Your task to perform on an android device: open app "Roku - Official Remote Control" (install if not already installed) and enter user name: "autumnal@gmail.com" and password: "stuffing" Image 0: 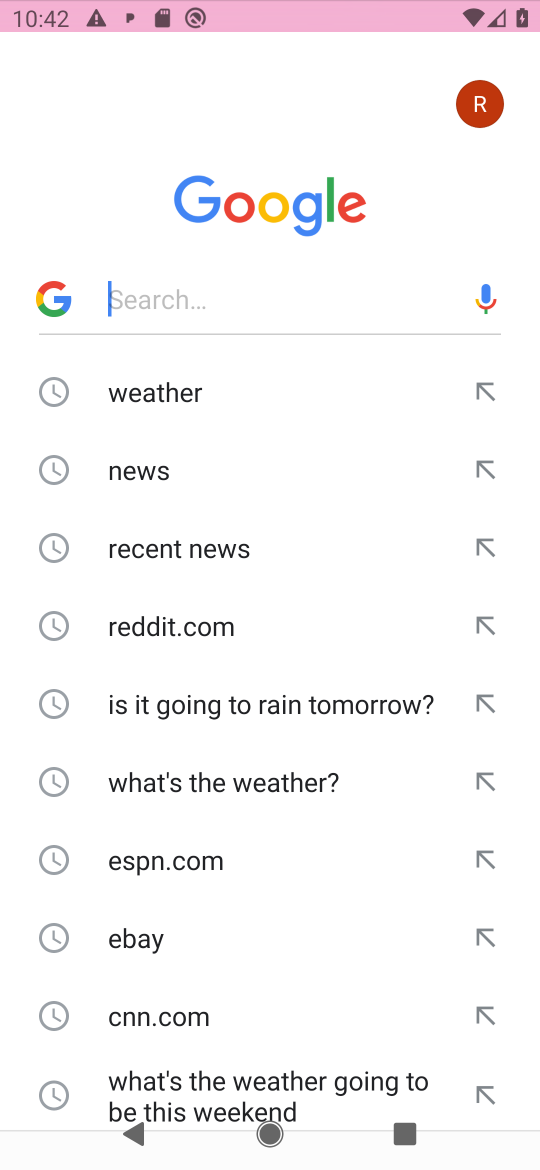
Step 0: press home button
Your task to perform on an android device: open app "Roku - Official Remote Control" (install if not already installed) and enter user name: "autumnal@gmail.com" and password: "stuffing" Image 1: 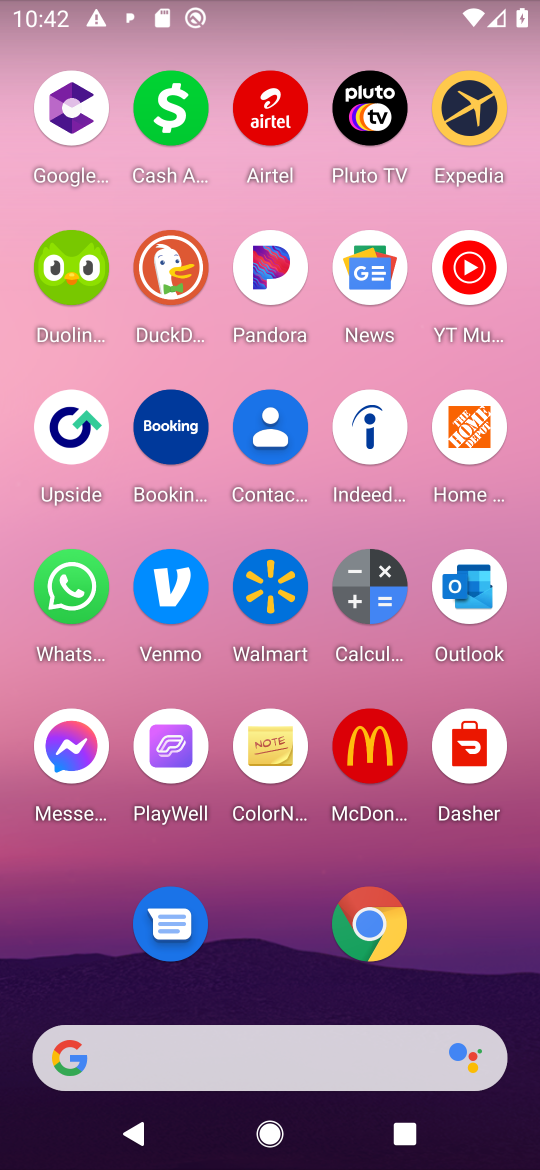
Step 1: drag from (442, 843) to (454, 58)
Your task to perform on an android device: open app "Roku - Official Remote Control" (install if not already installed) and enter user name: "autumnal@gmail.com" and password: "stuffing" Image 2: 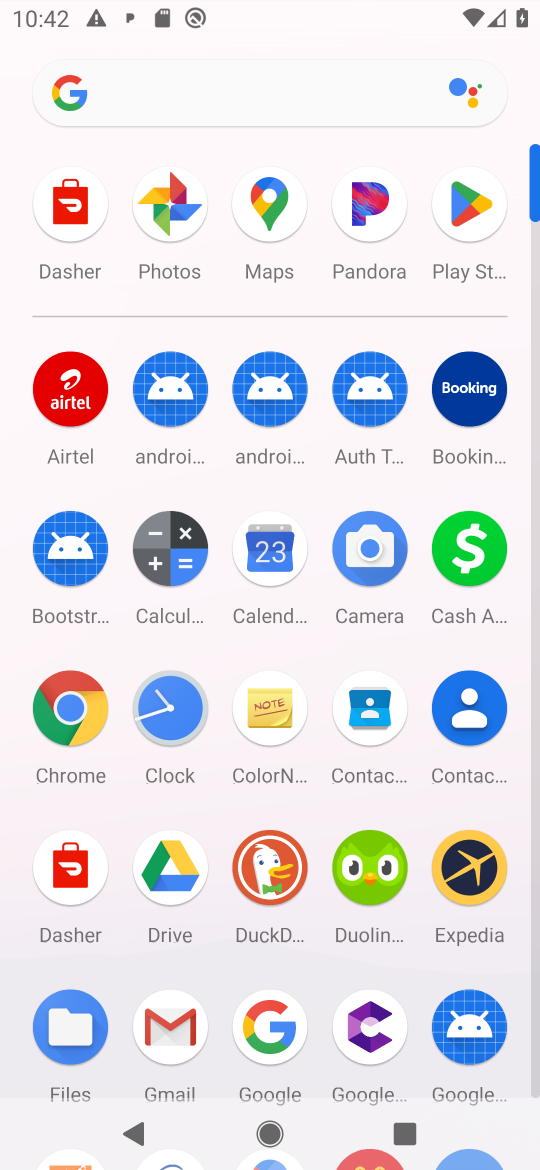
Step 2: click (471, 210)
Your task to perform on an android device: open app "Roku - Official Remote Control" (install if not already installed) and enter user name: "autumnal@gmail.com" and password: "stuffing" Image 3: 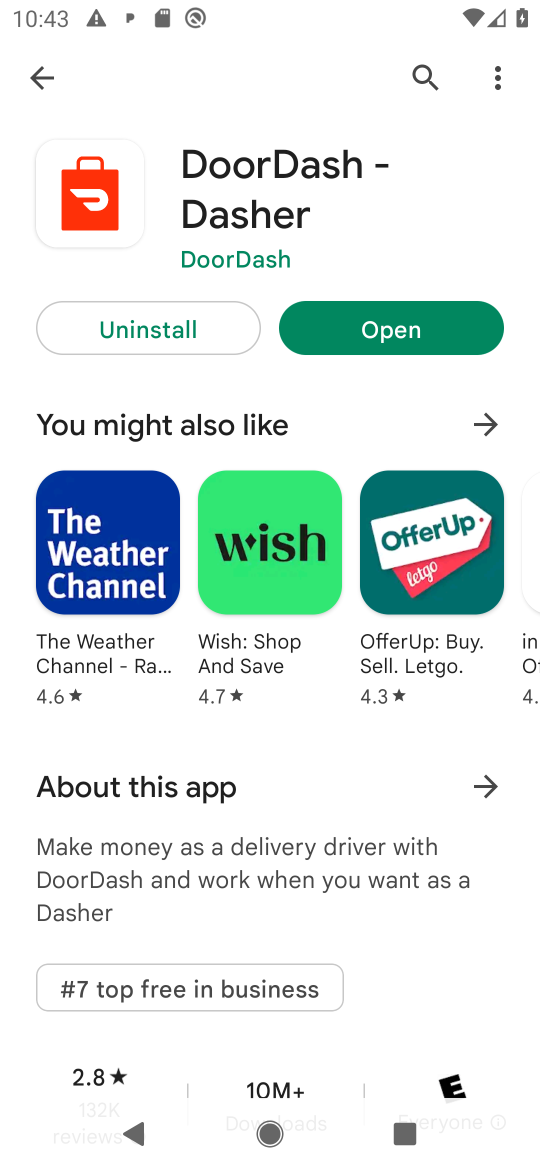
Step 3: press back button
Your task to perform on an android device: open app "Roku - Official Remote Control" (install if not already installed) and enter user name: "autumnal@gmail.com" and password: "stuffing" Image 4: 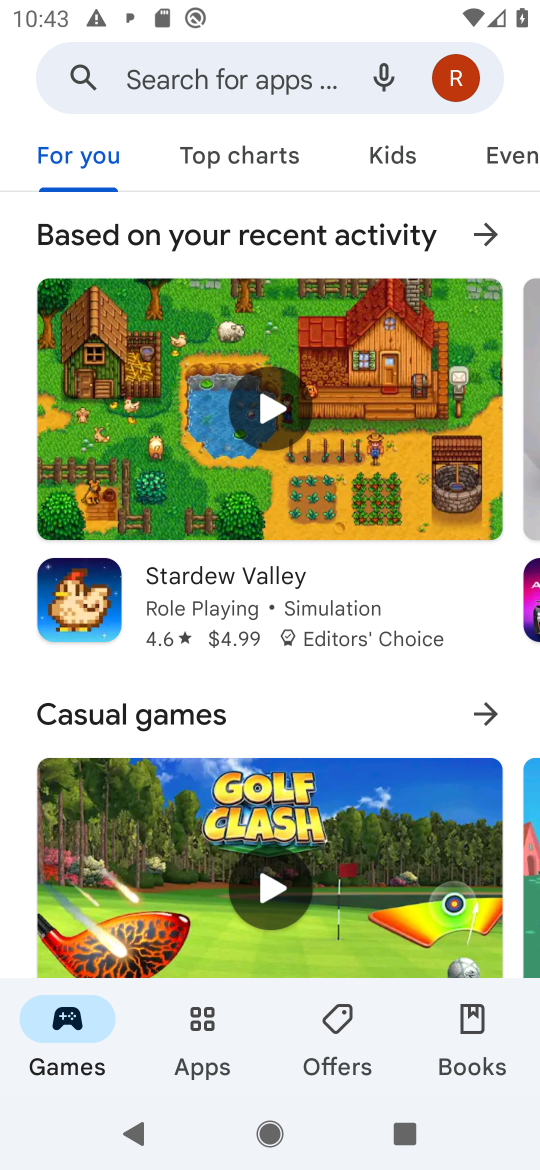
Step 4: click (224, 76)
Your task to perform on an android device: open app "Roku - Official Remote Control" (install if not already installed) and enter user name: "autumnal@gmail.com" and password: "stuffing" Image 5: 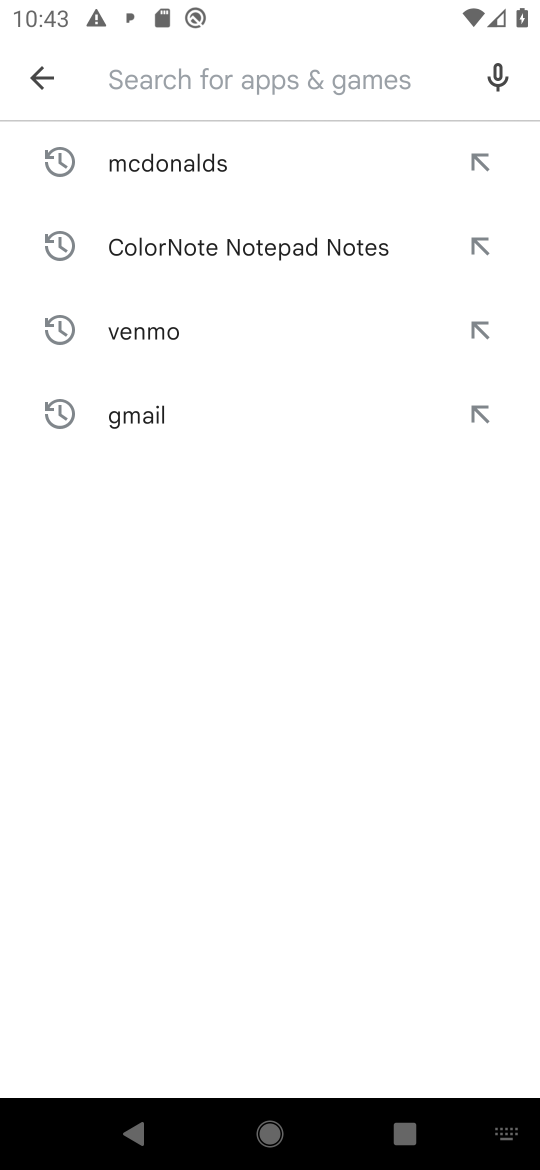
Step 5: press enter
Your task to perform on an android device: open app "Roku - Official Remote Control" (install if not already installed) and enter user name: "autumnal@gmail.com" and password: "stuffing" Image 6: 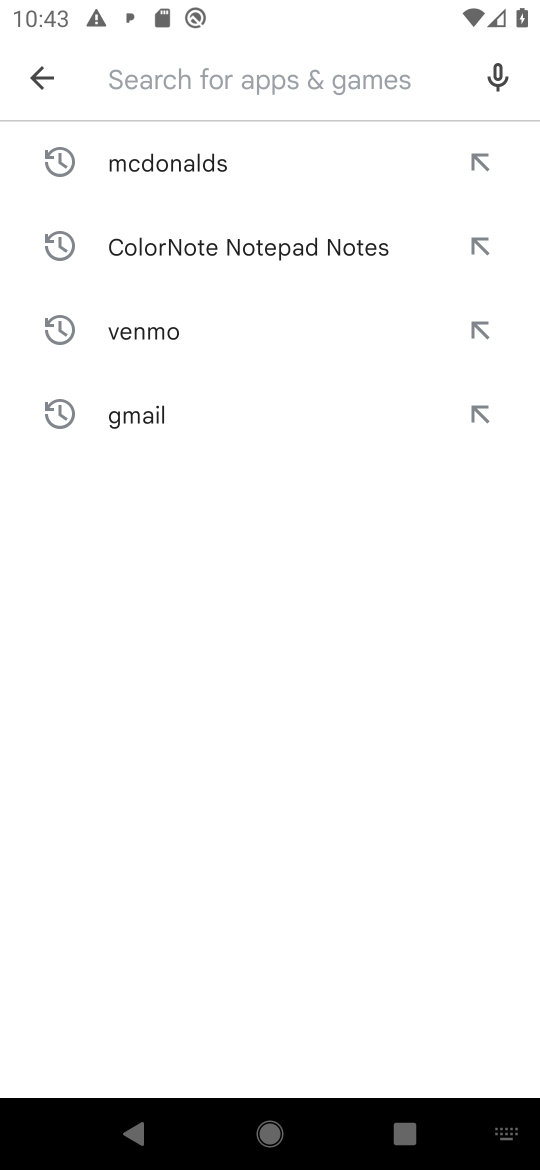
Step 6: type "Roku - Official Remote Control"
Your task to perform on an android device: open app "Roku - Official Remote Control" (install if not already installed) and enter user name: "autumnal@gmail.com" and password: "stuffing" Image 7: 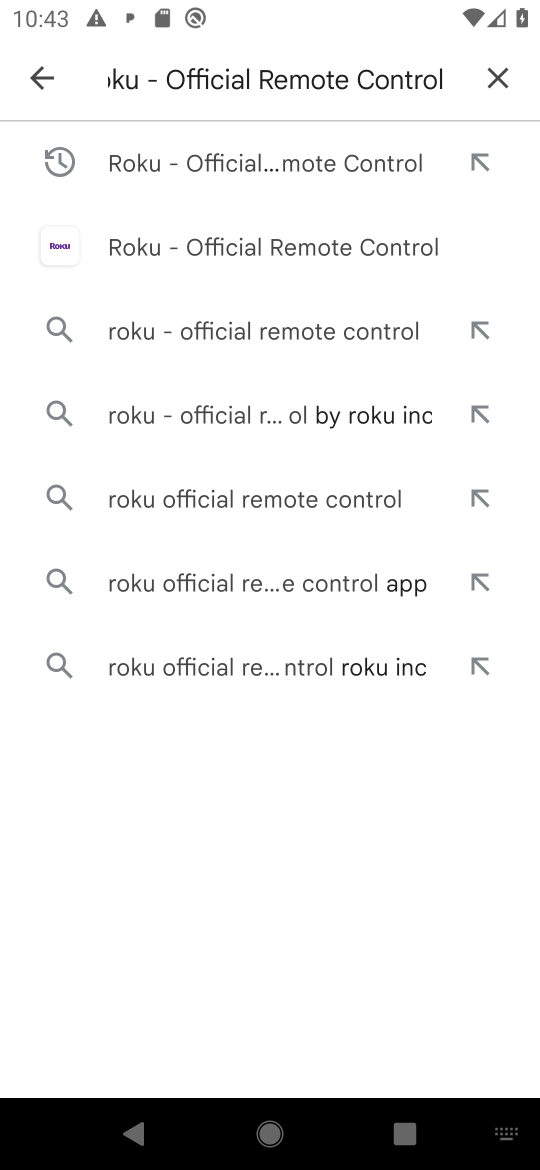
Step 7: click (279, 252)
Your task to perform on an android device: open app "Roku - Official Remote Control" (install if not already installed) and enter user name: "autumnal@gmail.com" and password: "stuffing" Image 8: 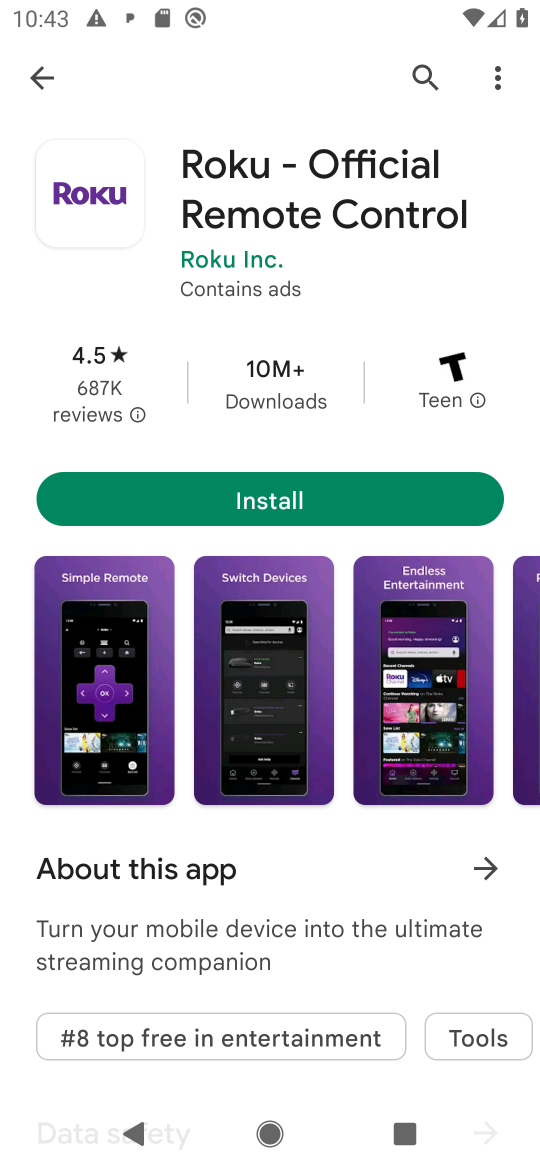
Step 8: click (281, 503)
Your task to perform on an android device: open app "Roku - Official Remote Control" (install if not already installed) and enter user name: "autumnal@gmail.com" and password: "stuffing" Image 9: 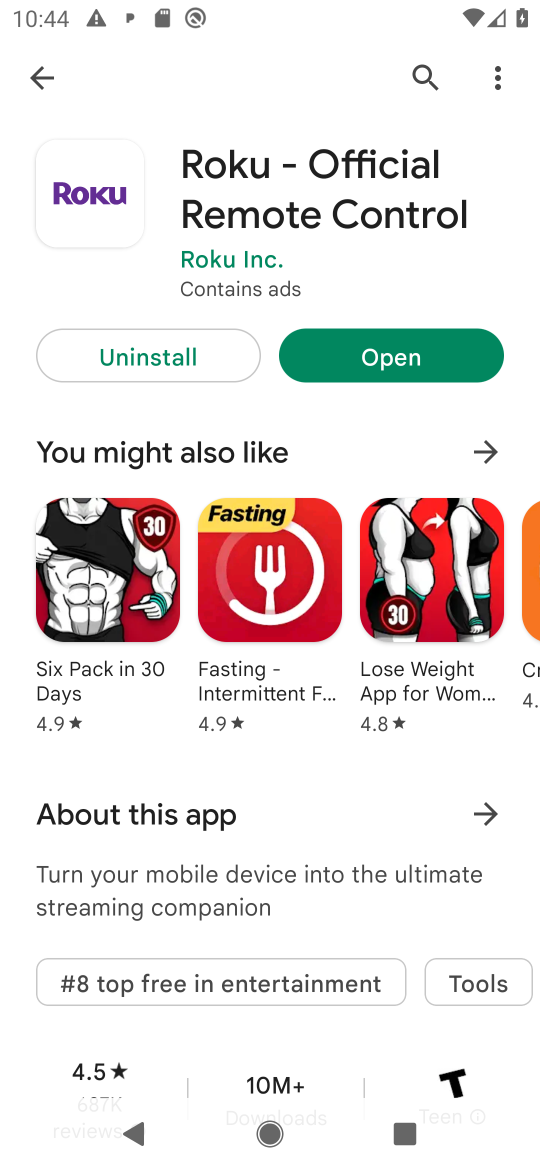
Step 9: click (446, 359)
Your task to perform on an android device: open app "Roku - Official Remote Control" (install if not already installed) and enter user name: "autumnal@gmail.com" and password: "stuffing" Image 10: 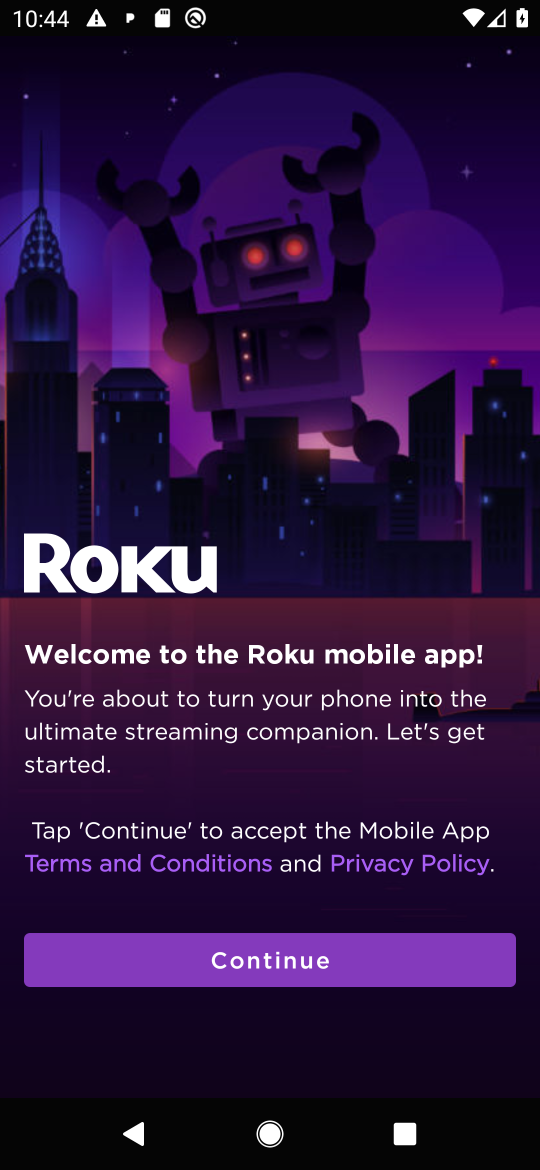
Step 10: click (364, 949)
Your task to perform on an android device: open app "Roku - Official Remote Control" (install if not already installed) and enter user name: "autumnal@gmail.com" and password: "stuffing" Image 11: 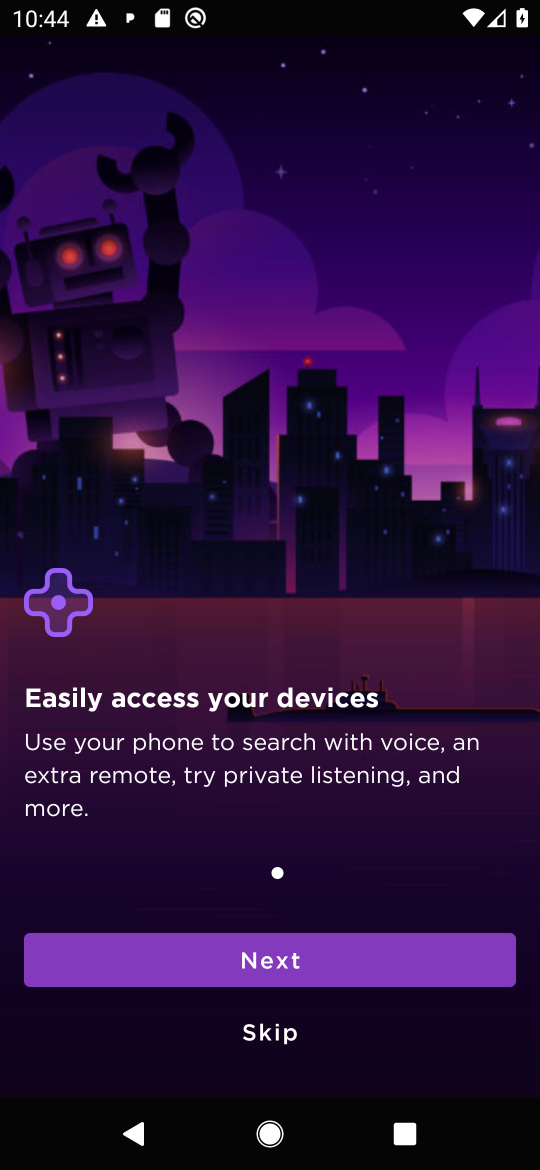
Step 11: click (275, 1024)
Your task to perform on an android device: open app "Roku - Official Remote Control" (install if not already installed) and enter user name: "autumnal@gmail.com" and password: "stuffing" Image 12: 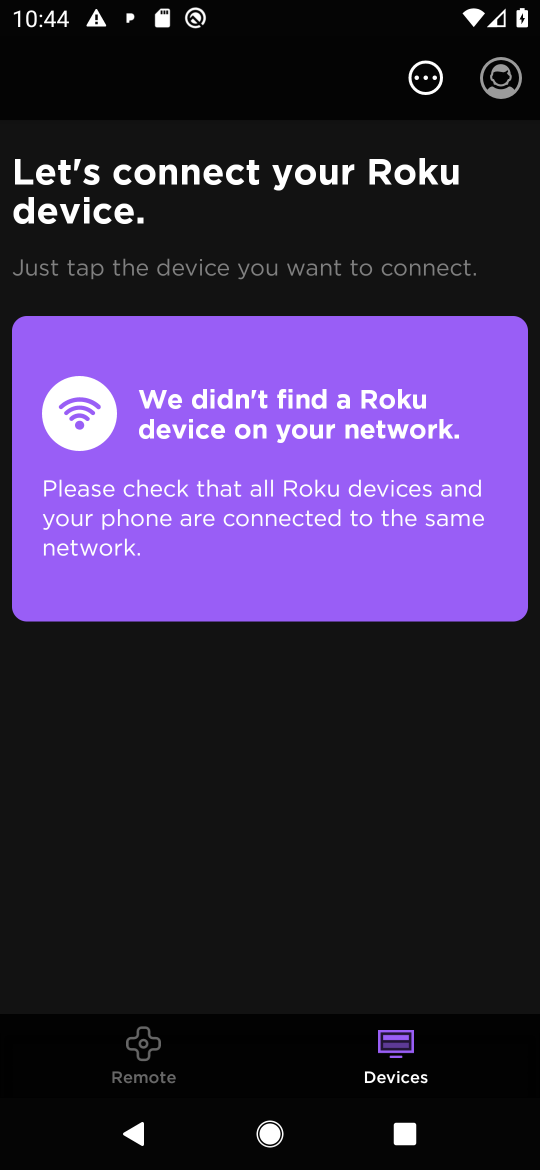
Step 12: click (502, 81)
Your task to perform on an android device: open app "Roku - Official Remote Control" (install if not already installed) and enter user name: "autumnal@gmail.com" and password: "stuffing" Image 13: 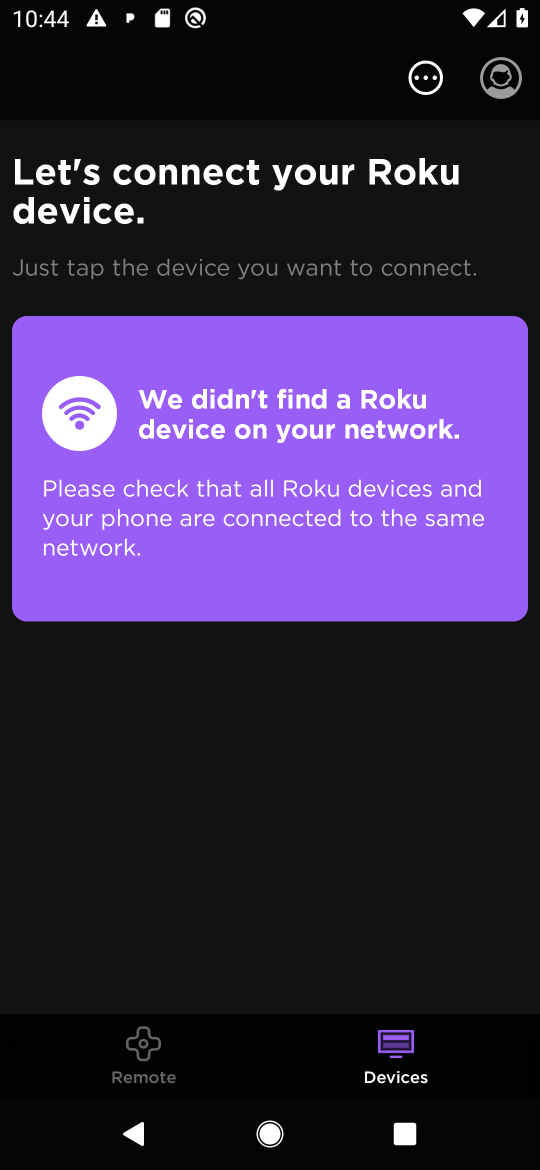
Step 13: click (498, 89)
Your task to perform on an android device: open app "Roku - Official Remote Control" (install if not already installed) and enter user name: "autumnal@gmail.com" and password: "stuffing" Image 14: 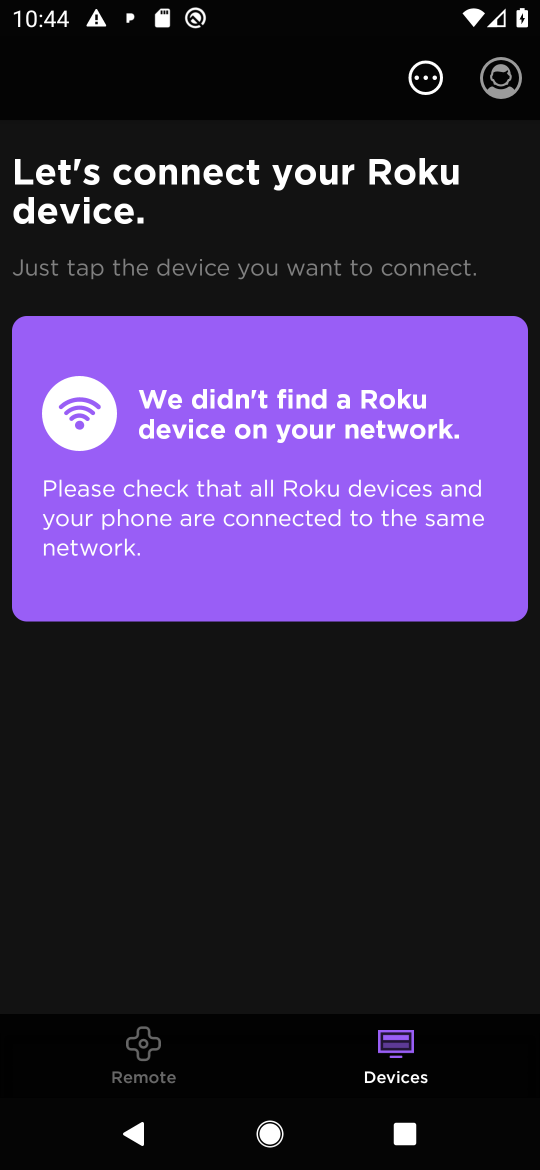
Step 14: click (508, 76)
Your task to perform on an android device: open app "Roku - Official Remote Control" (install if not already installed) and enter user name: "autumnal@gmail.com" and password: "stuffing" Image 15: 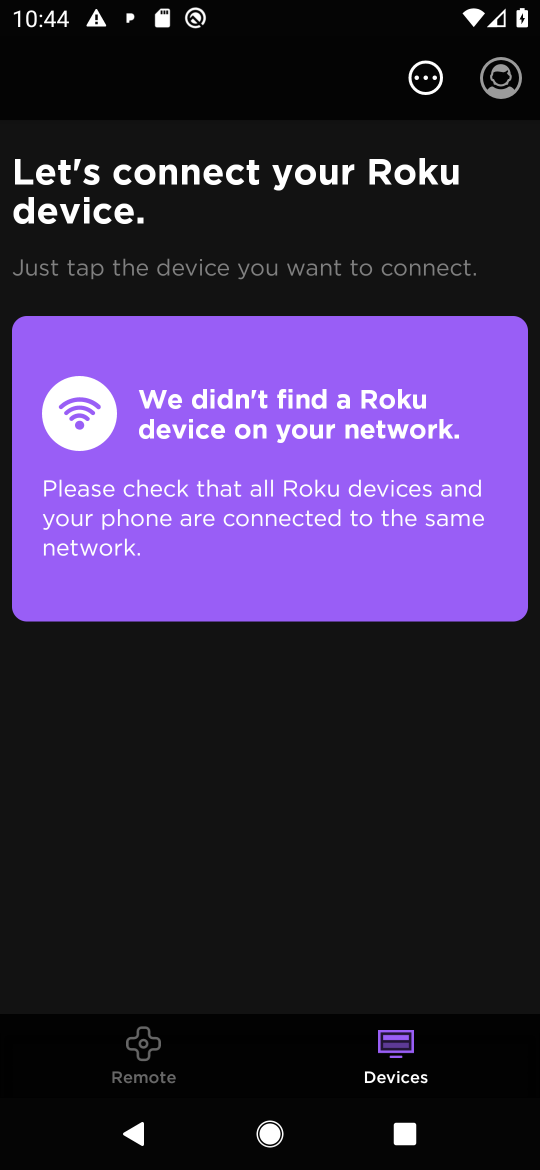
Step 15: task complete